Your task to perform on an android device: turn on improve location accuracy Image 0: 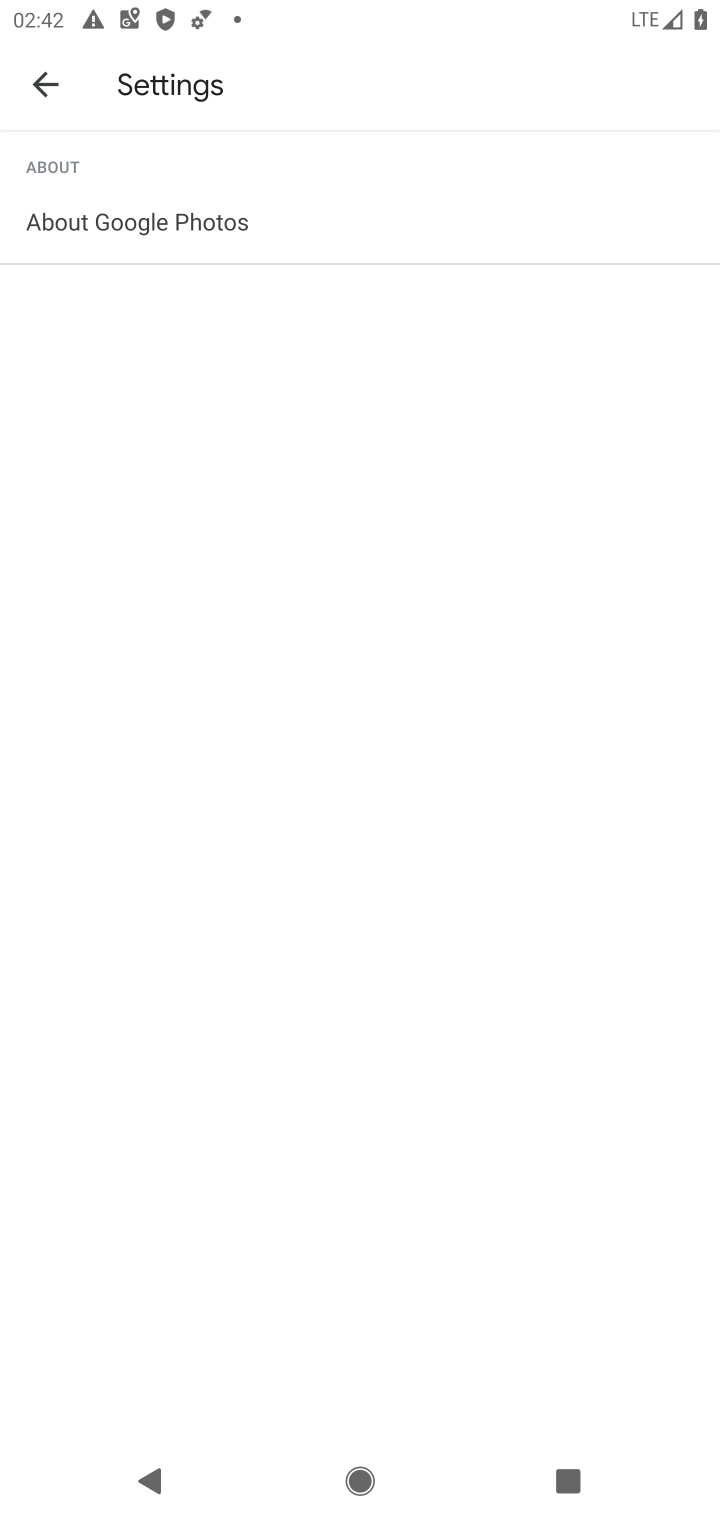
Step 0: press home button
Your task to perform on an android device: turn on improve location accuracy Image 1: 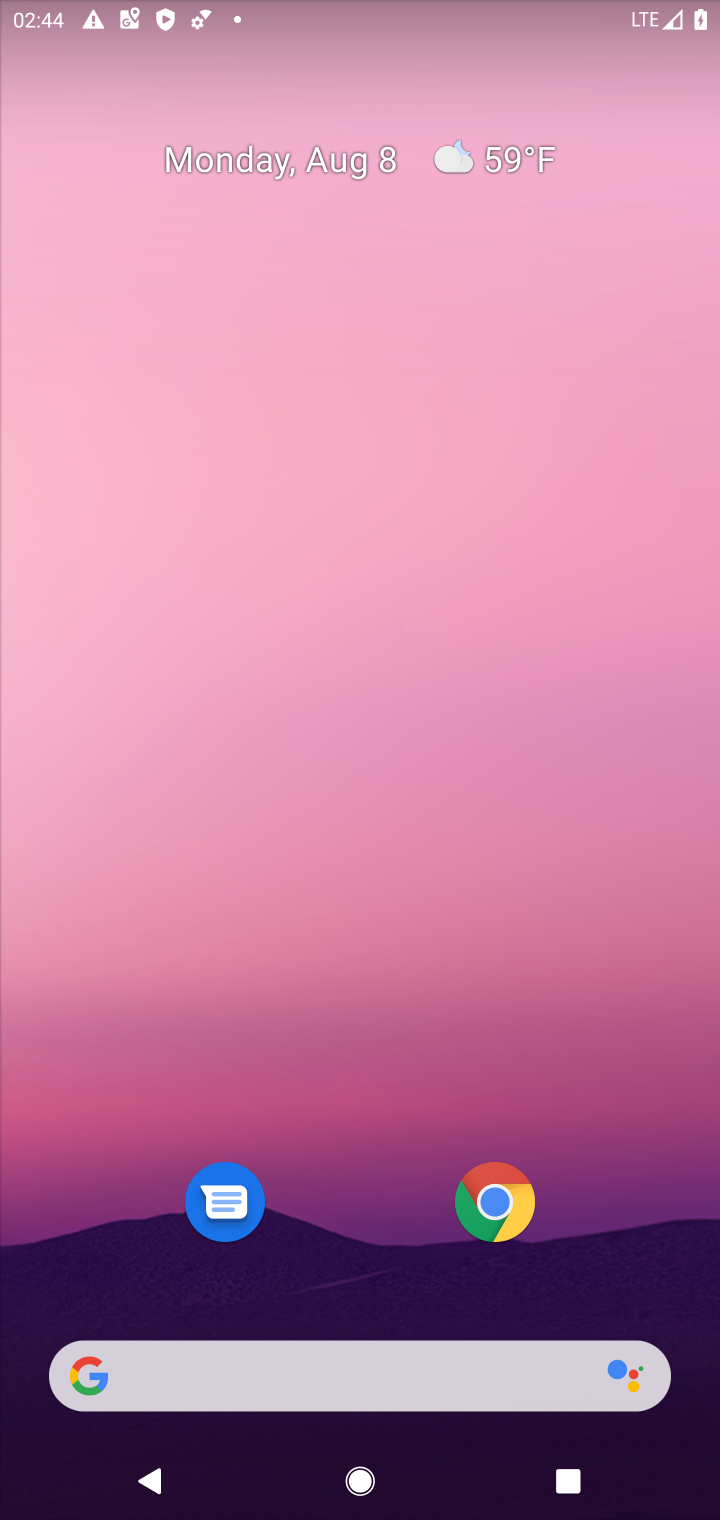
Step 1: drag from (425, 198) to (496, 131)
Your task to perform on an android device: turn on improve location accuracy Image 2: 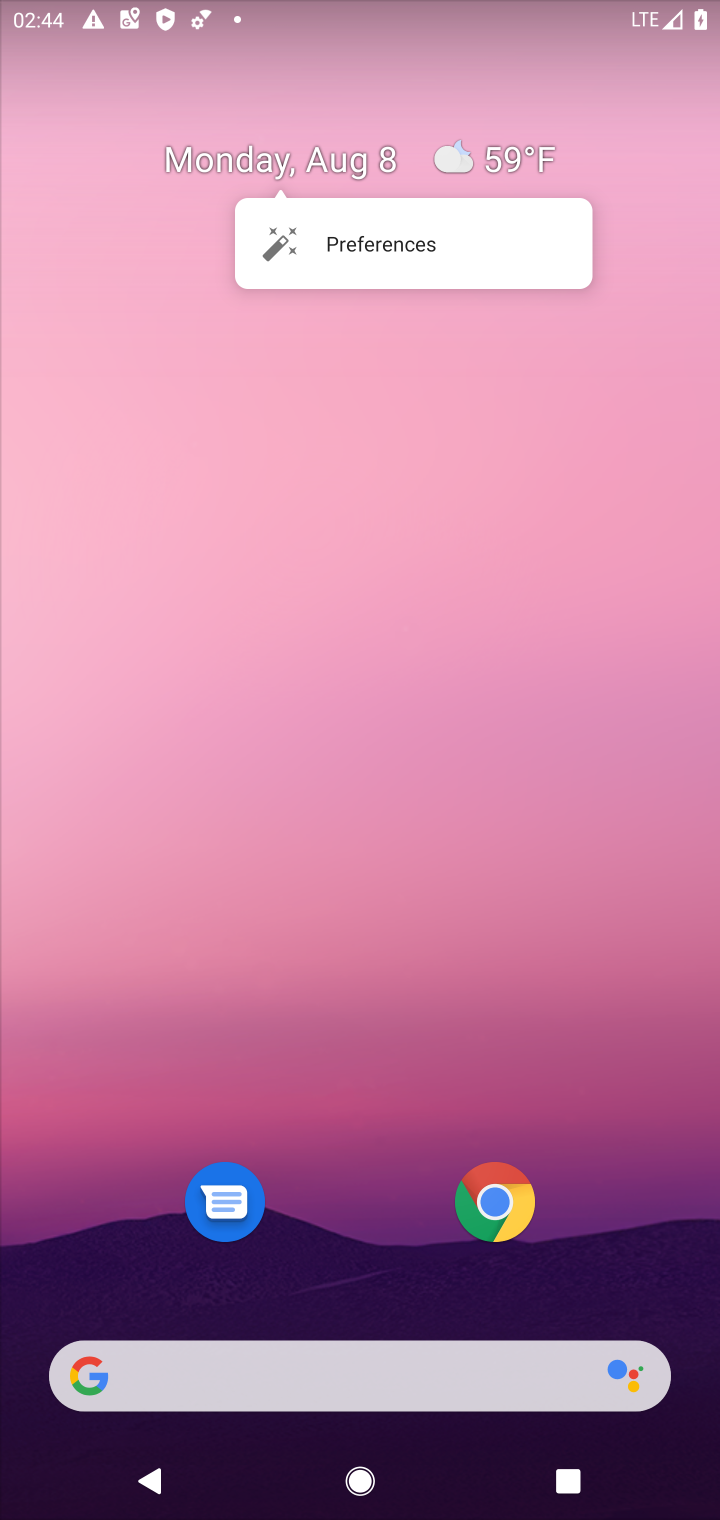
Step 2: click (337, 1272)
Your task to perform on an android device: turn on improve location accuracy Image 3: 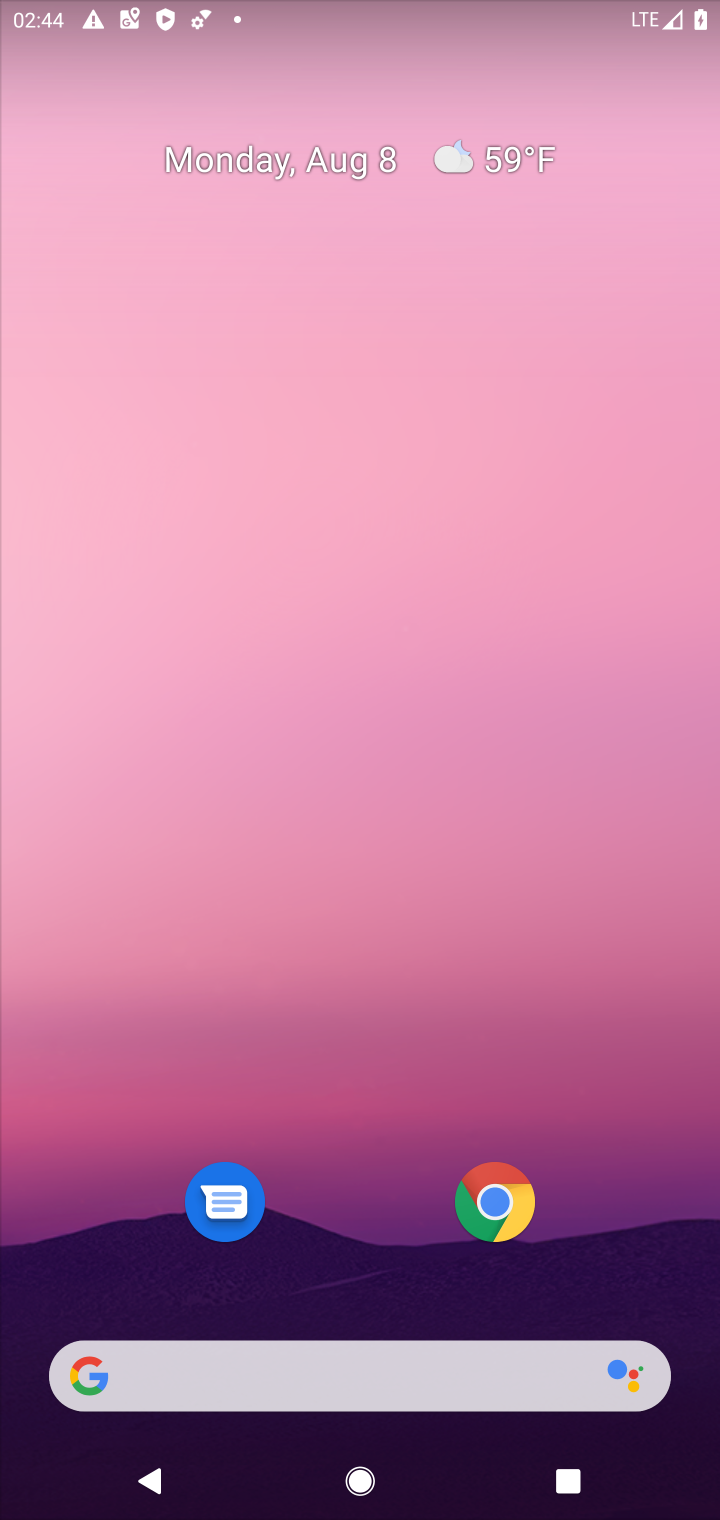
Step 3: drag from (320, 1214) to (354, 300)
Your task to perform on an android device: turn on improve location accuracy Image 4: 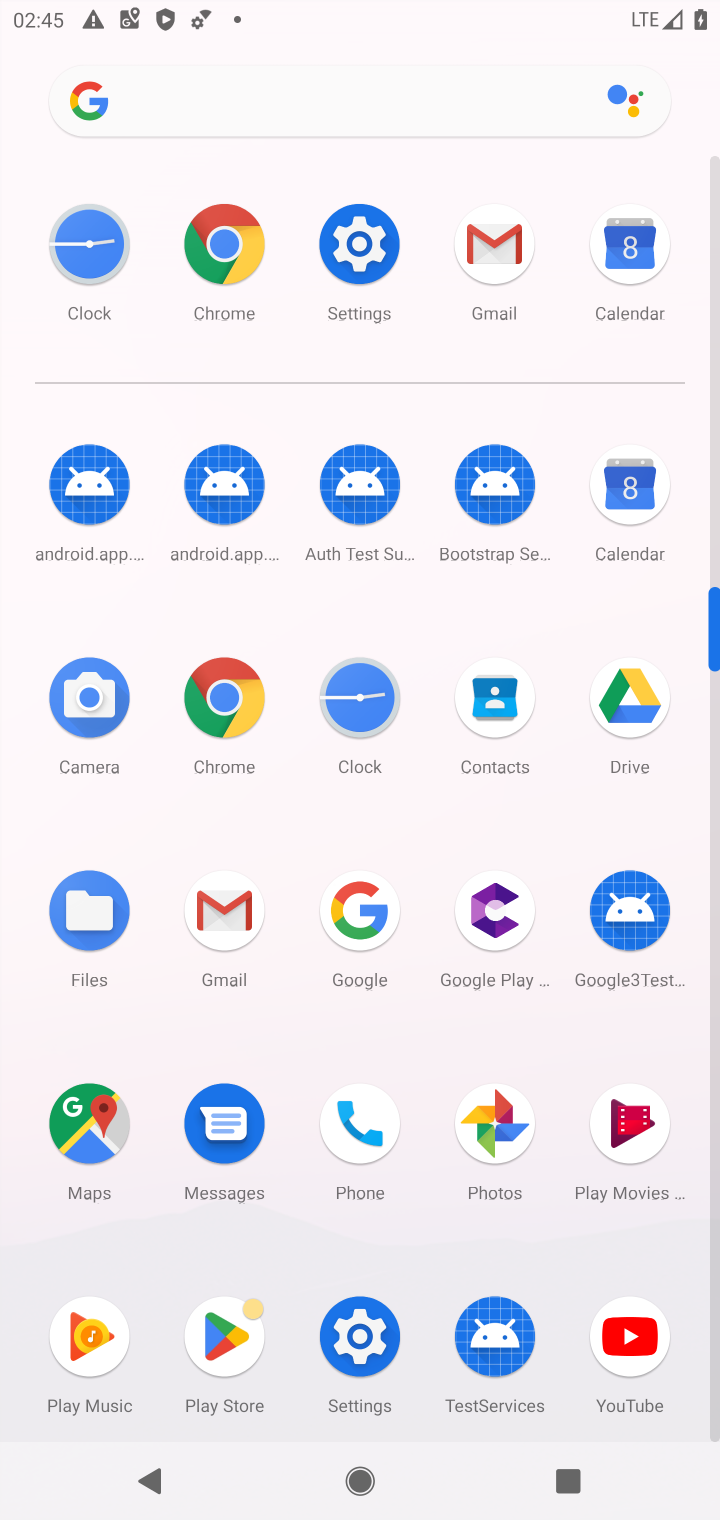
Step 4: click (357, 260)
Your task to perform on an android device: turn on improve location accuracy Image 5: 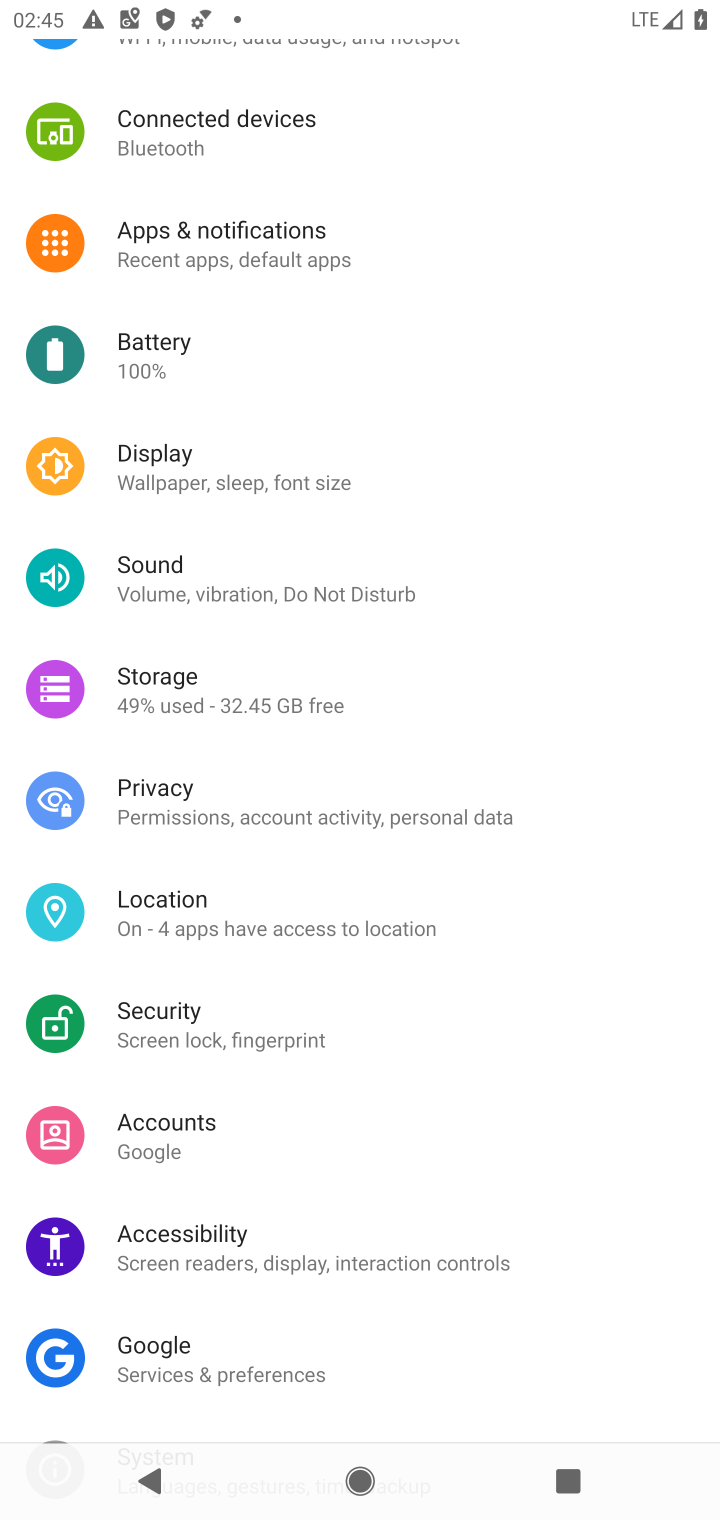
Step 5: click (110, 891)
Your task to perform on an android device: turn on improve location accuracy Image 6: 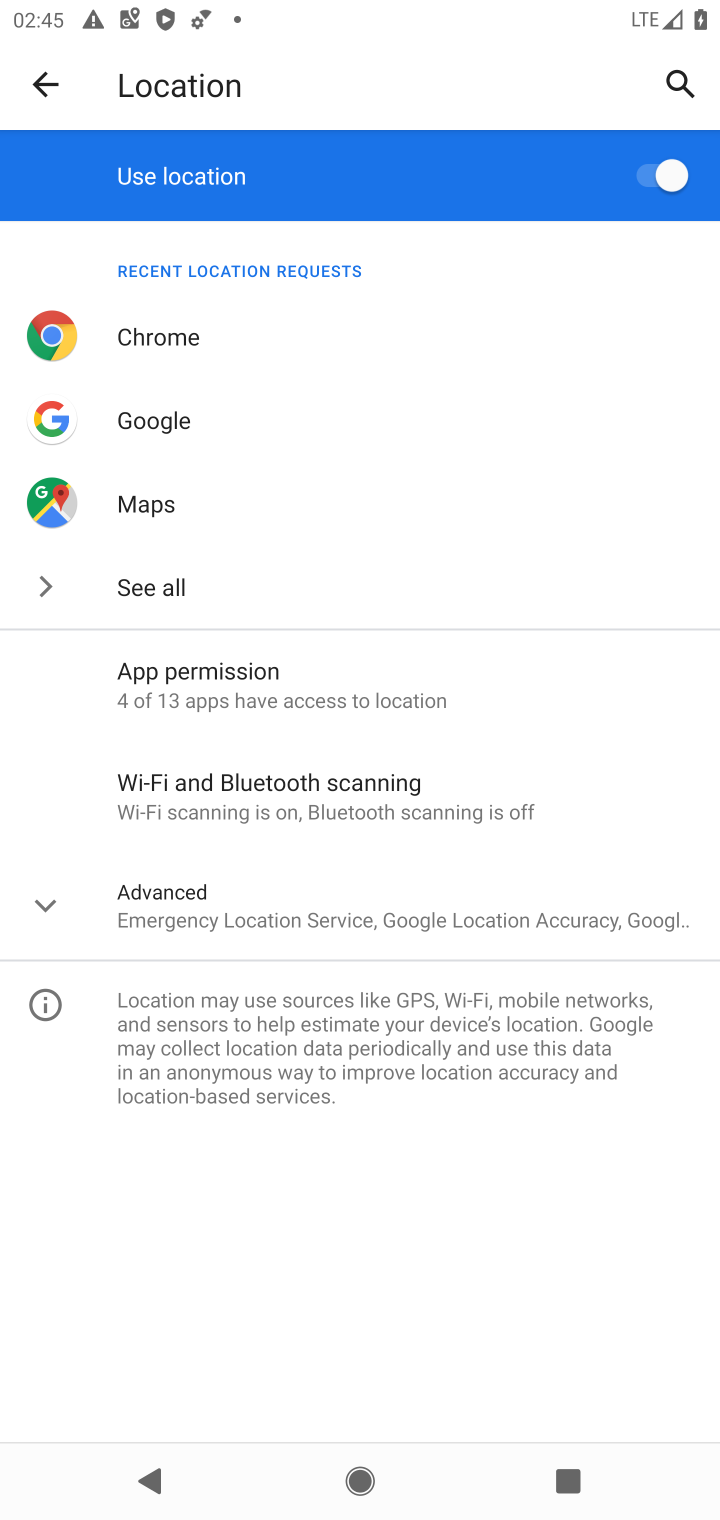
Step 6: click (121, 908)
Your task to perform on an android device: turn on improve location accuracy Image 7: 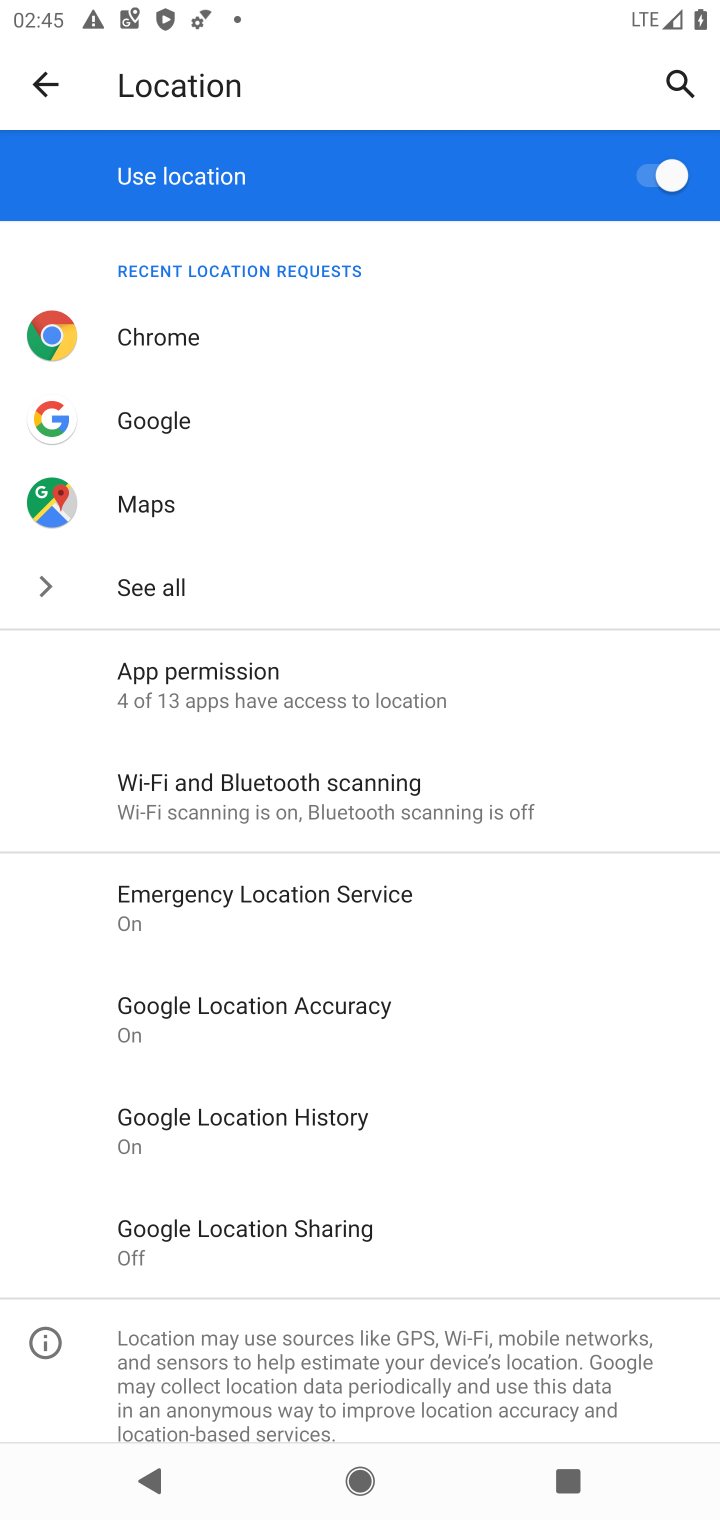
Step 7: click (308, 998)
Your task to perform on an android device: turn on improve location accuracy Image 8: 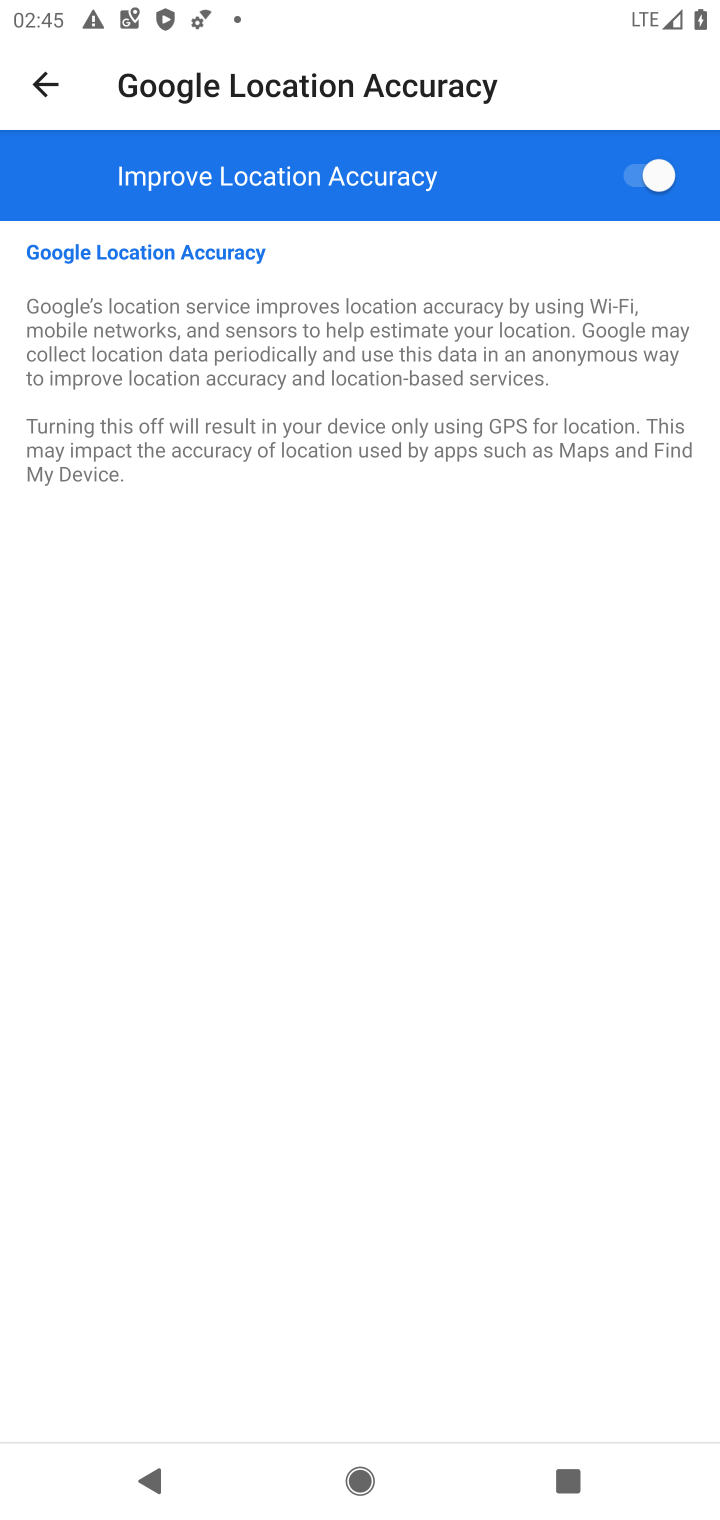
Step 8: task complete